Your task to perform on an android device: change keyboard looks Image 0: 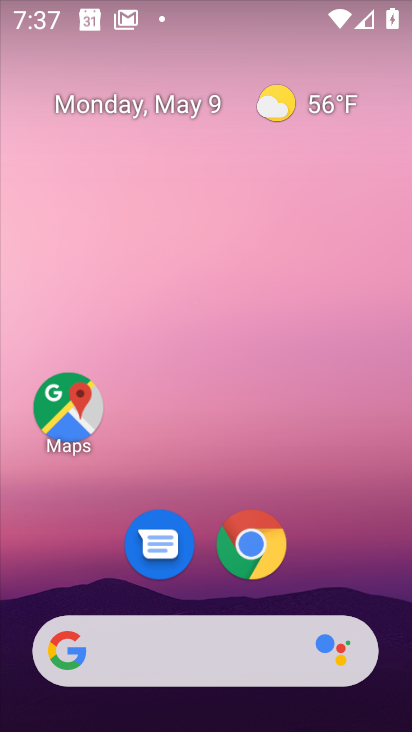
Step 0: drag from (333, 547) to (308, 79)
Your task to perform on an android device: change keyboard looks Image 1: 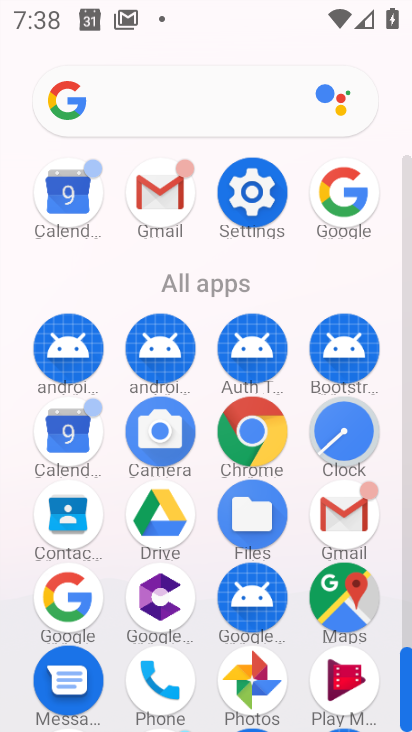
Step 1: click (253, 193)
Your task to perform on an android device: change keyboard looks Image 2: 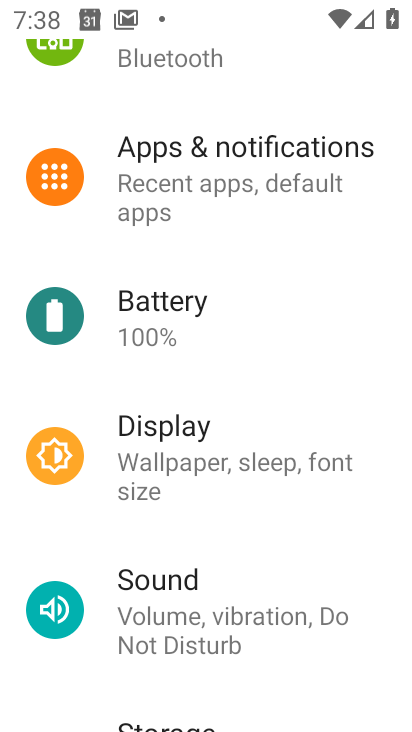
Step 2: drag from (208, 512) to (259, 393)
Your task to perform on an android device: change keyboard looks Image 3: 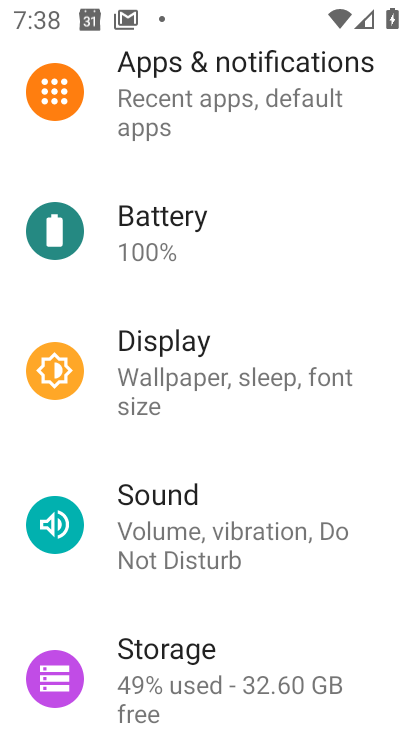
Step 3: drag from (197, 588) to (283, 452)
Your task to perform on an android device: change keyboard looks Image 4: 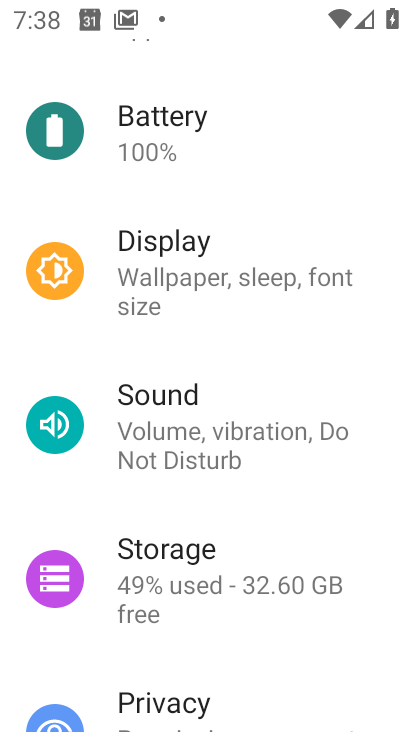
Step 4: drag from (173, 518) to (278, 360)
Your task to perform on an android device: change keyboard looks Image 5: 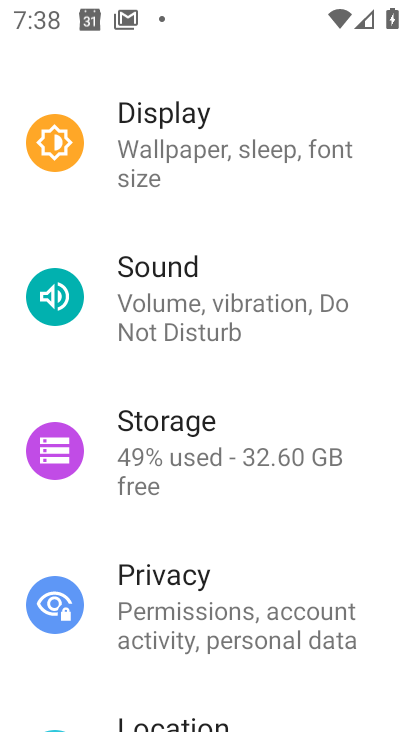
Step 5: drag from (137, 537) to (237, 350)
Your task to perform on an android device: change keyboard looks Image 6: 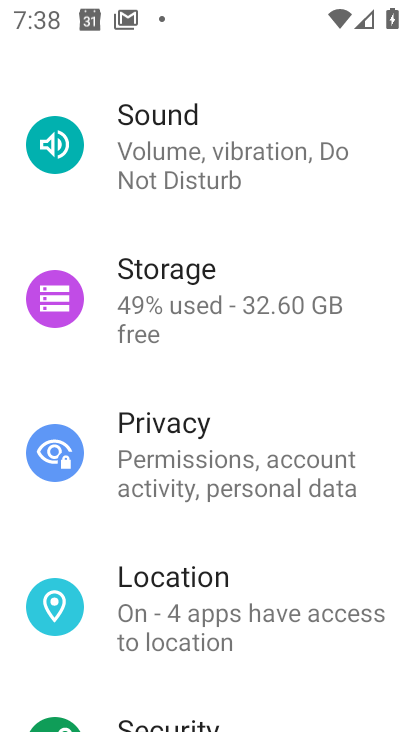
Step 6: drag from (147, 547) to (232, 348)
Your task to perform on an android device: change keyboard looks Image 7: 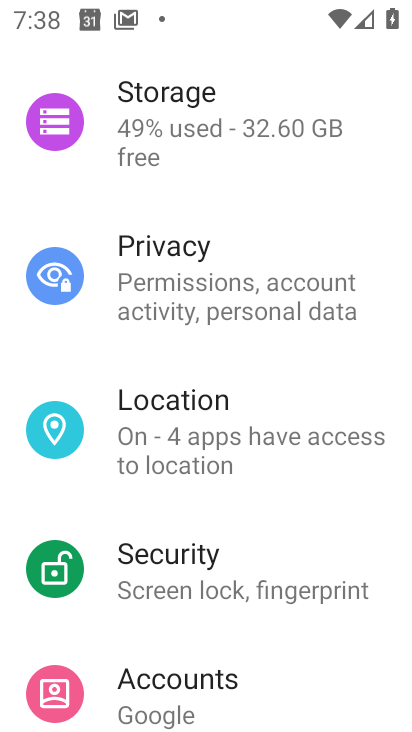
Step 7: drag from (159, 512) to (245, 361)
Your task to perform on an android device: change keyboard looks Image 8: 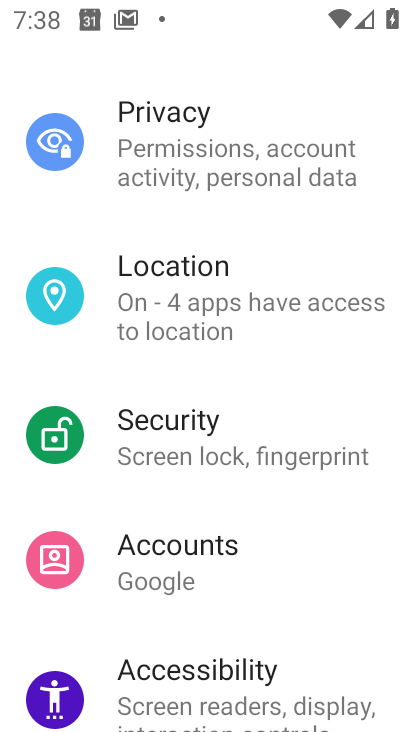
Step 8: drag from (136, 497) to (249, 352)
Your task to perform on an android device: change keyboard looks Image 9: 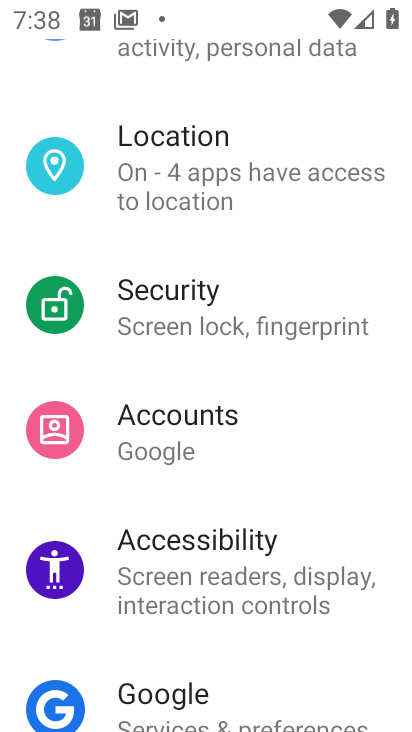
Step 9: drag from (146, 517) to (276, 369)
Your task to perform on an android device: change keyboard looks Image 10: 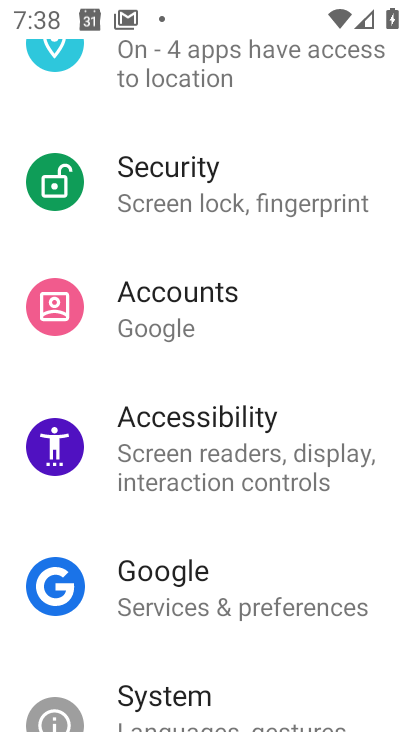
Step 10: drag from (150, 537) to (243, 396)
Your task to perform on an android device: change keyboard looks Image 11: 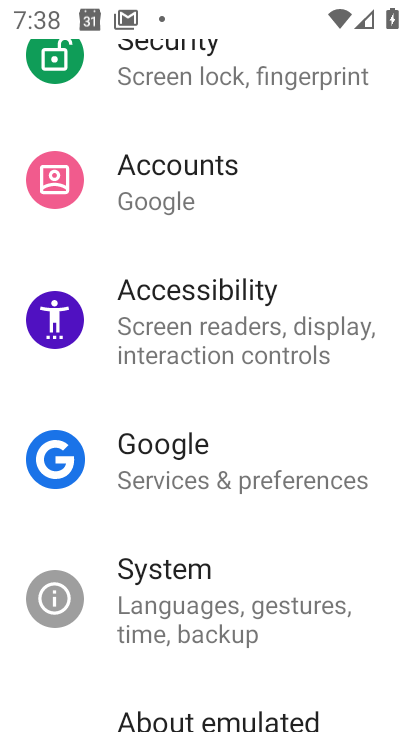
Step 11: click (171, 572)
Your task to perform on an android device: change keyboard looks Image 12: 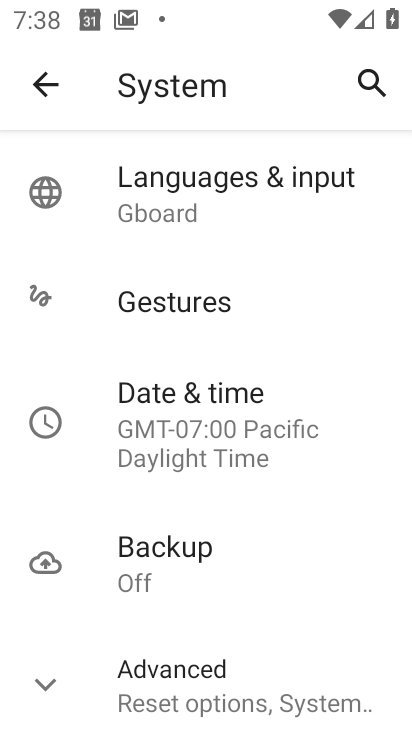
Step 12: click (228, 173)
Your task to perform on an android device: change keyboard looks Image 13: 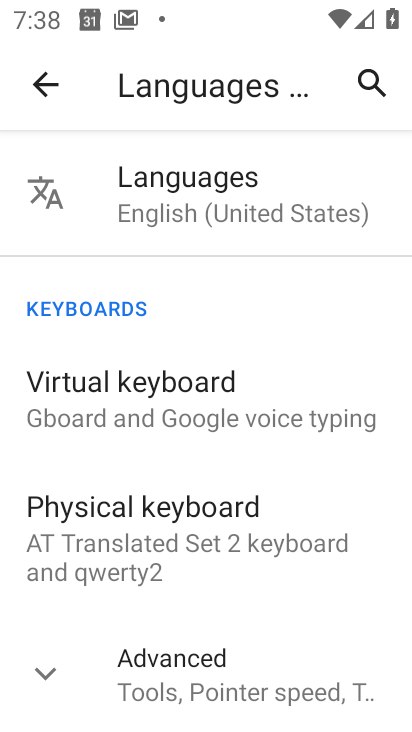
Step 13: click (184, 380)
Your task to perform on an android device: change keyboard looks Image 14: 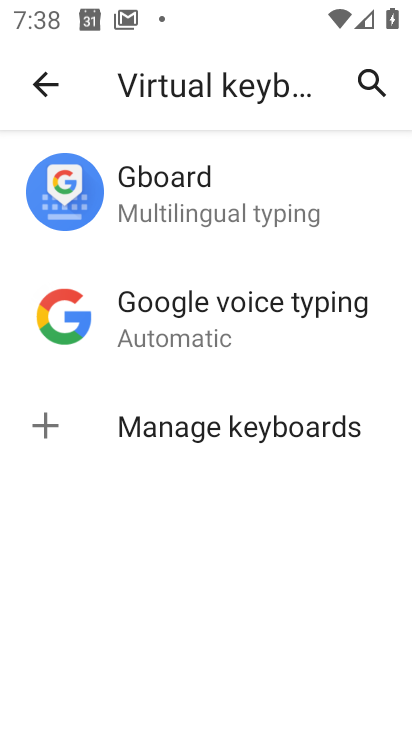
Step 14: click (180, 182)
Your task to perform on an android device: change keyboard looks Image 15: 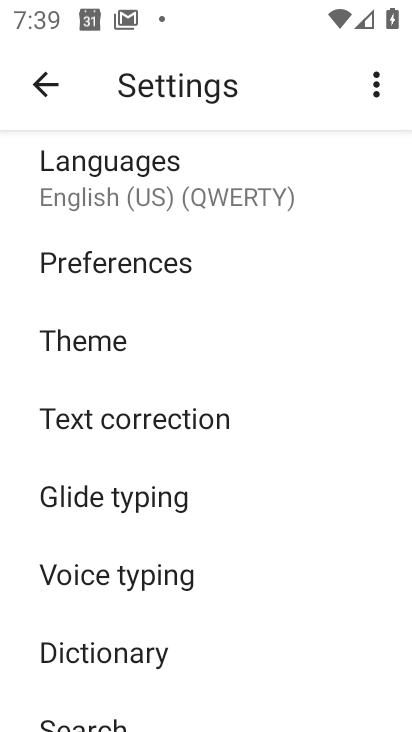
Step 15: click (115, 343)
Your task to perform on an android device: change keyboard looks Image 16: 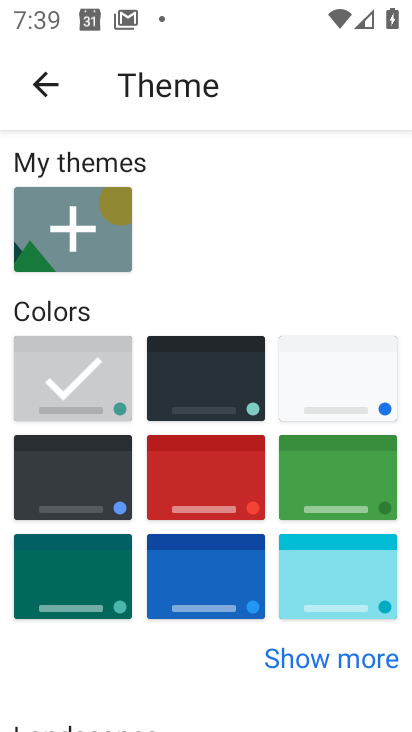
Step 16: click (346, 480)
Your task to perform on an android device: change keyboard looks Image 17: 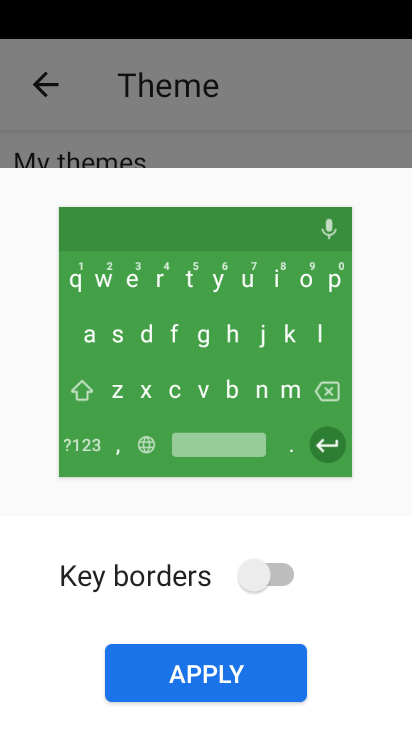
Step 17: click (260, 571)
Your task to perform on an android device: change keyboard looks Image 18: 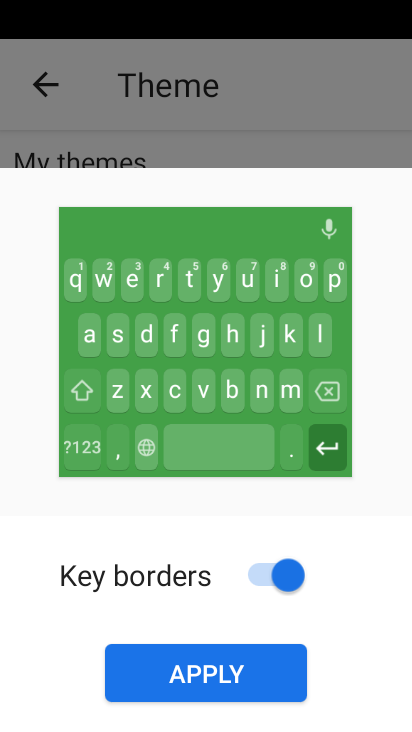
Step 18: click (219, 668)
Your task to perform on an android device: change keyboard looks Image 19: 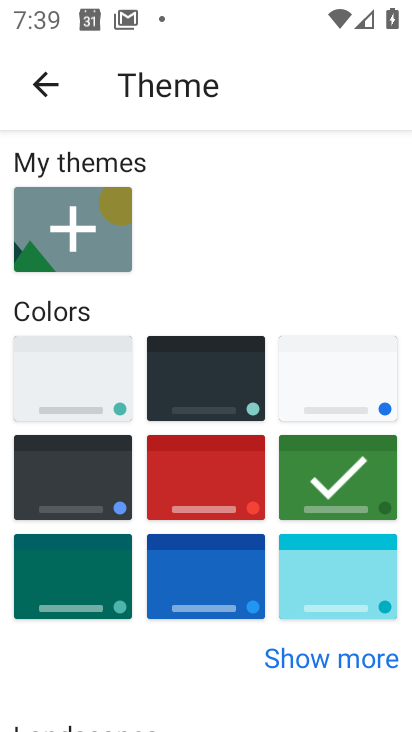
Step 19: task complete